Your task to perform on an android device: Open Youtube and go to the subscriptions tab Image 0: 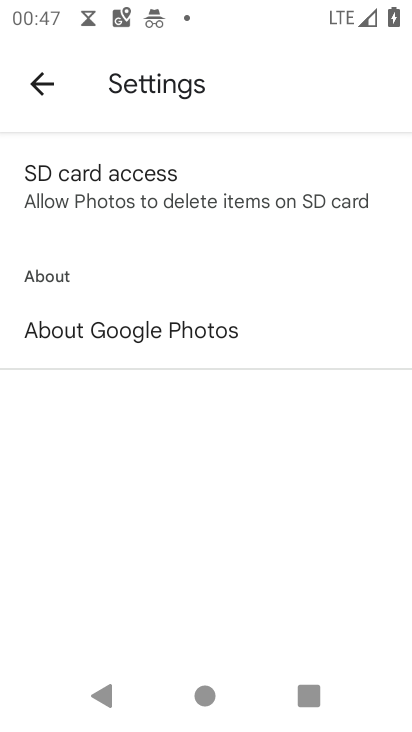
Step 0: press home button
Your task to perform on an android device: Open Youtube and go to the subscriptions tab Image 1: 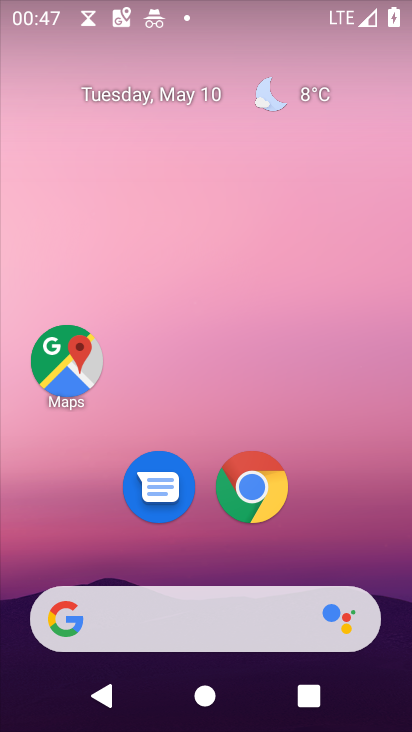
Step 1: drag from (213, 570) to (228, 36)
Your task to perform on an android device: Open Youtube and go to the subscriptions tab Image 2: 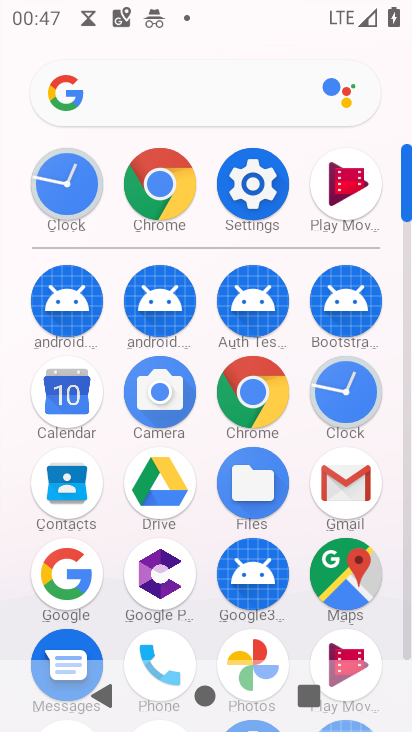
Step 2: drag from (207, 530) to (212, 132)
Your task to perform on an android device: Open Youtube and go to the subscriptions tab Image 3: 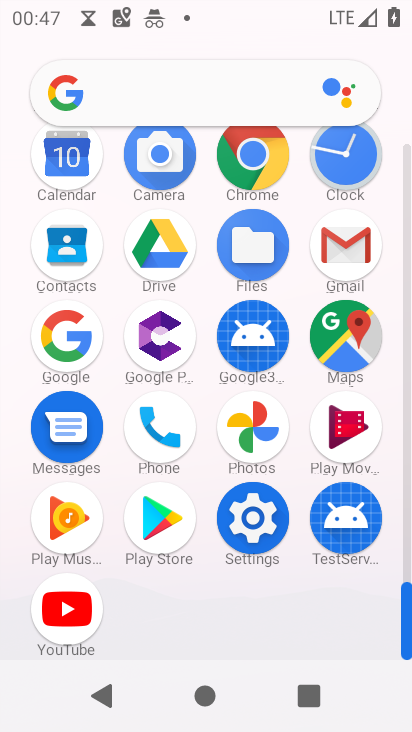
Step 3: click (62, 600)
Your task to perform on an android device: Open Youtube and go to the subscriptions tab Image 4: 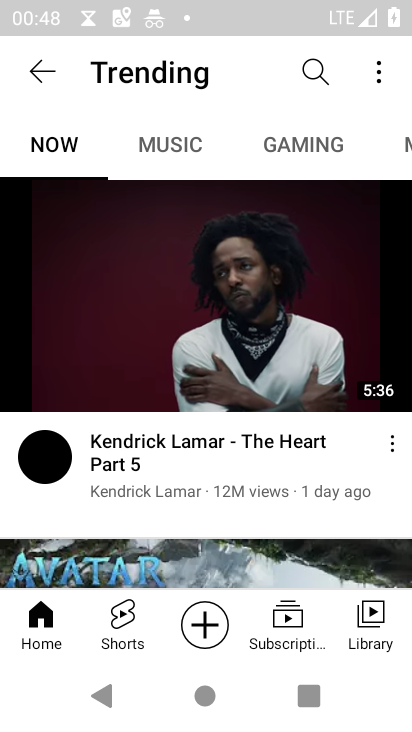
Step 4: click (286, 623)
Your task to perform on an android device: Open Youtube and go to the subscriptions tab Image 5: 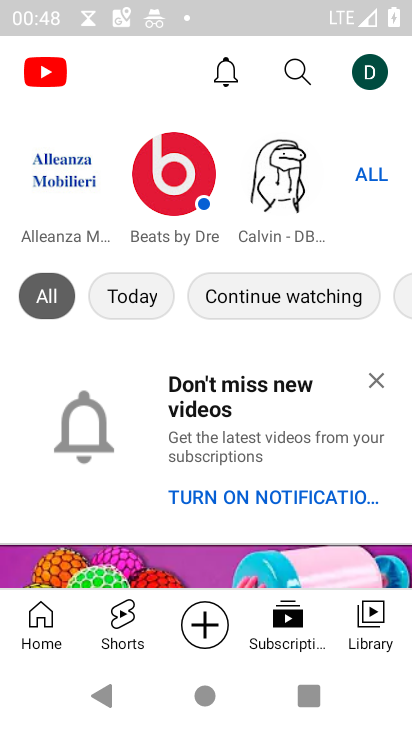
Step 5: click (373, 384)
Your task to perform on an android device: Open Youtube and go to the subscriptions tab Image 6: 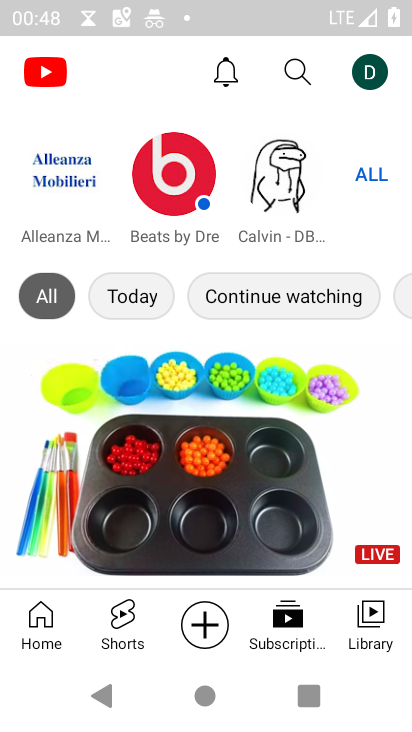
Step 6: task complete